Your task to perform on an android device: change notification settings in the gmail app Image 0: 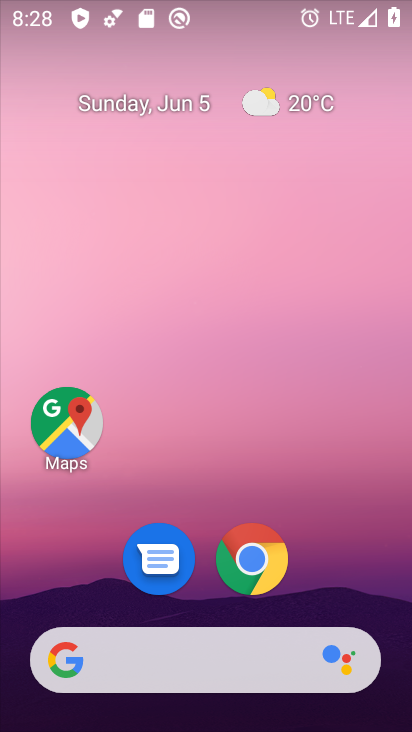
Step 0: drag from (310, 422) to (326, 106)
Your task to perform on an android device: change notification settings in the gmail app Image 1: 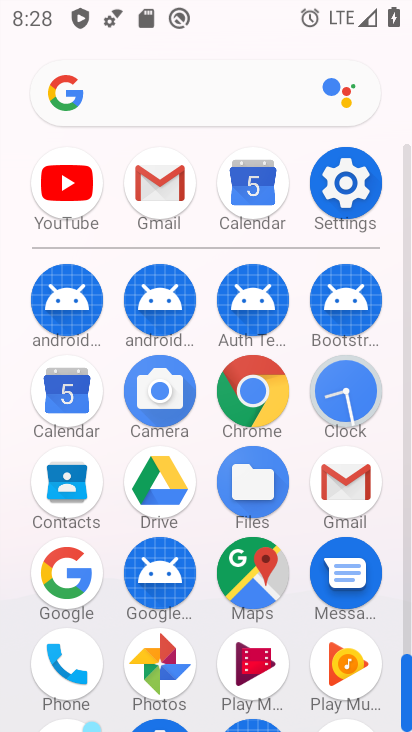
Step 1: click (164, 199)
Your task to perform on an android device: change notification settings in the gmail app Image 2: 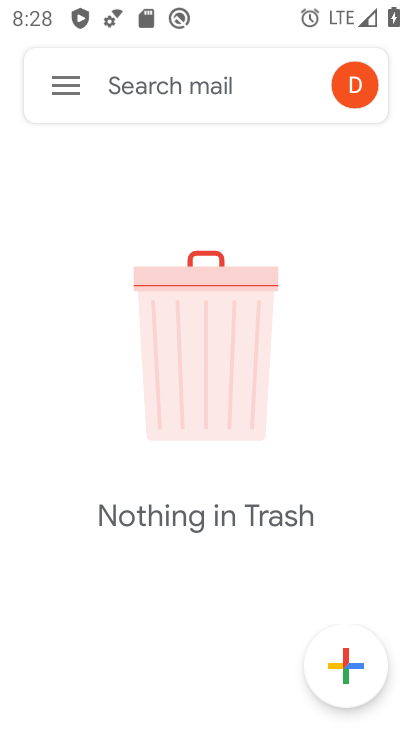
Step 2: click (75, 102)
Your task to perform on an android device: change notification settings in the gmail app Image 3: 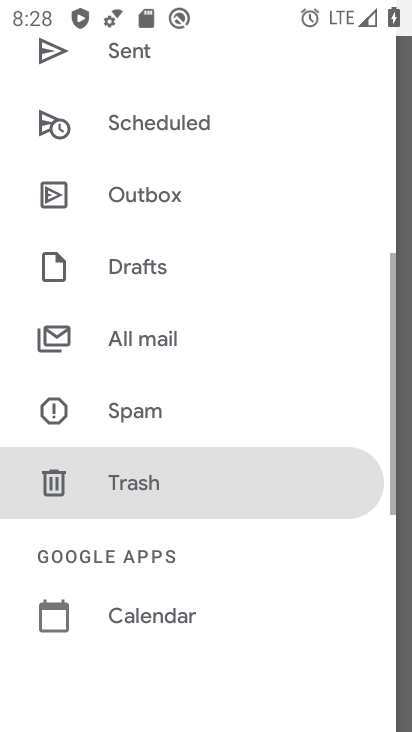
Step 3: drag from (123, 627) to (245, 240)
Your task to perform on an android device: change notification settings in the gmail app Image 4: 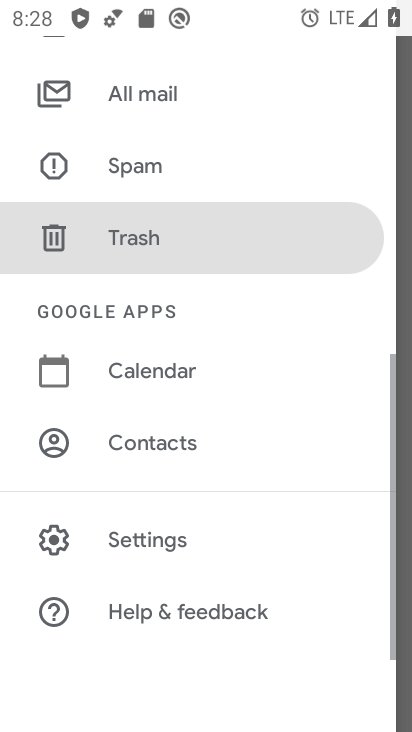
Step 4: click (140, 547)
Your task to perform on an android device: change notification settings in the gmail app Image 5: 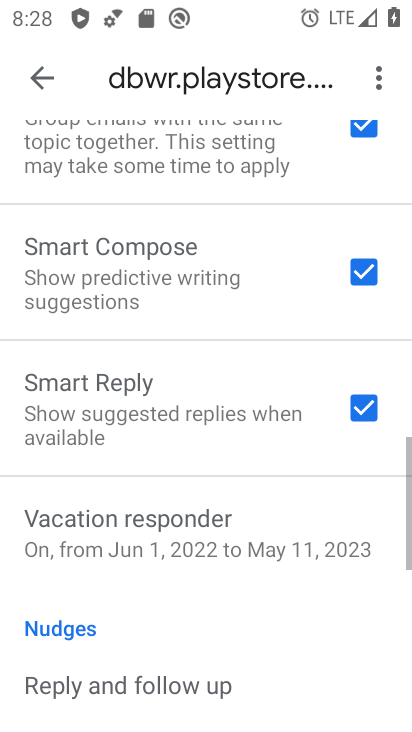
Step 5: drag from (234, 261) to (233, 687)
Your task to perform on an android device: change notification settings in the gmail app Image 6: 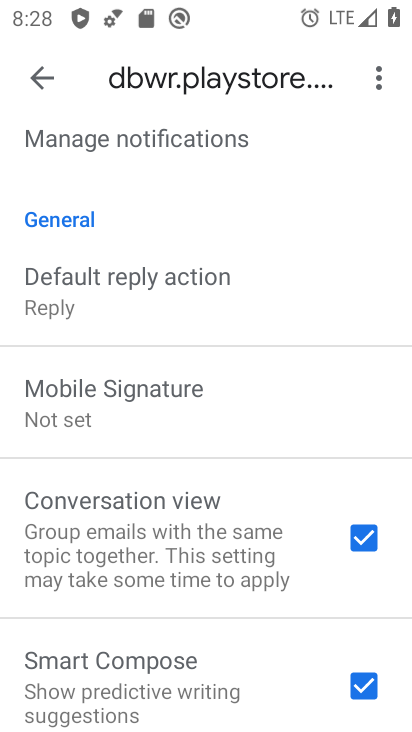
Step 6: drag from (229, 348) to (237, 592)
Your task to perform on an android device: change notification settings in the gmail app Image 7: 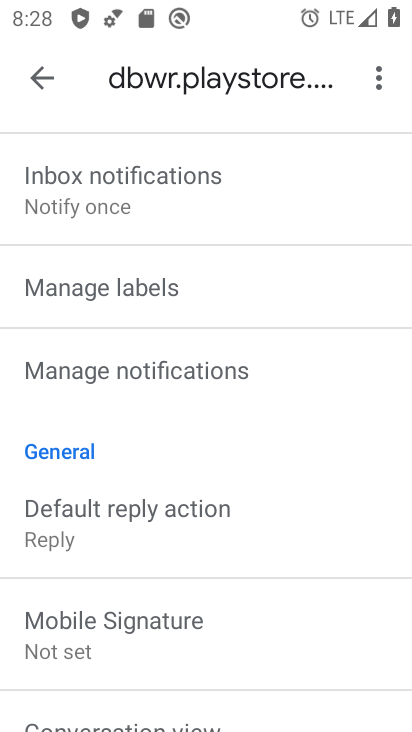
Step 7: click (191, 366)
Your task to perform on an android device: change notification settings in the gmail app Image 8: 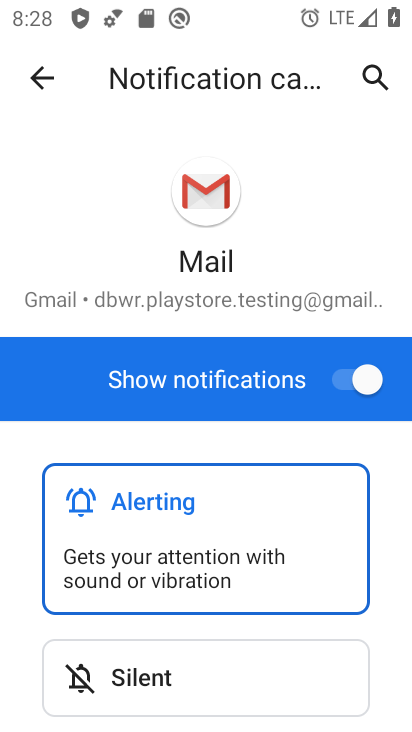
Step 8: drag from (261, 562) to (313, 77)
Your task to perform on an android device: change notification settings in the gmail app Image 9: 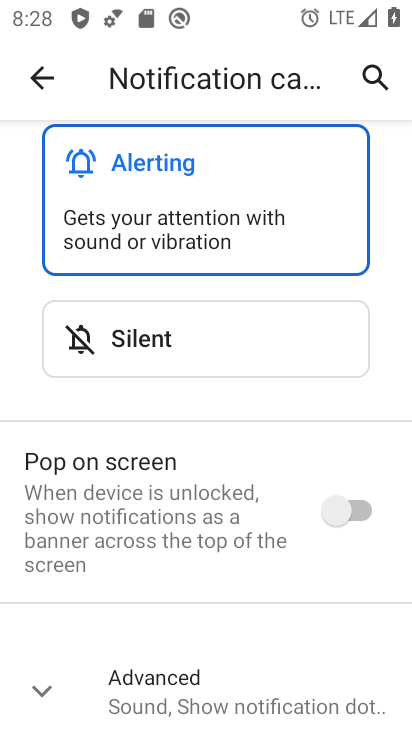
Step 9: click (328, 517)
Your task to perform on an android device: change notification settings in the gmail app Image 10: 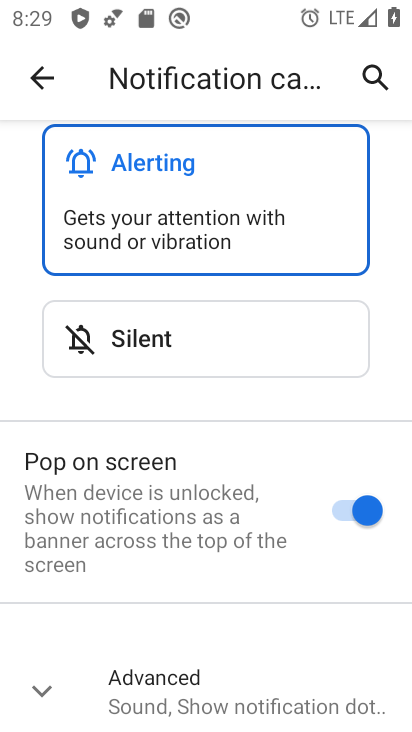
Step 10: task complete